Your task to perform on an android device: Open settings Image 0: 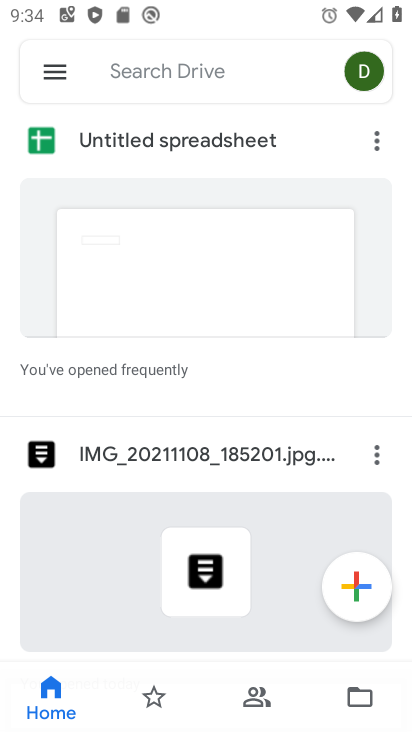
Step 0: press home button
Your task to perform on an android device: Open settings Image 1: 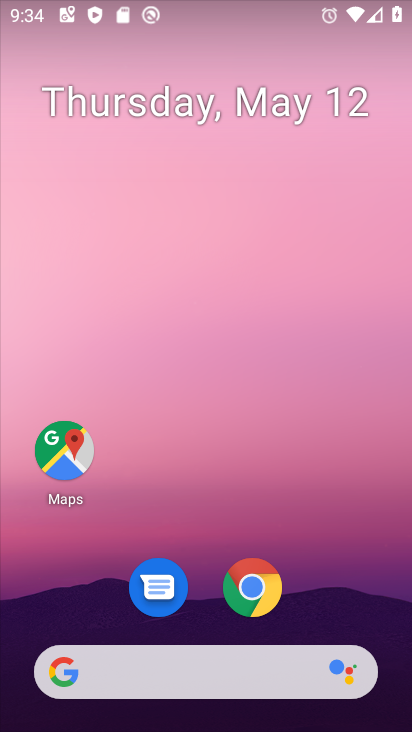
Step 1: drag from (327, 630) to (357, 287)
Your task to perform on an android device: Open settings Image 2: 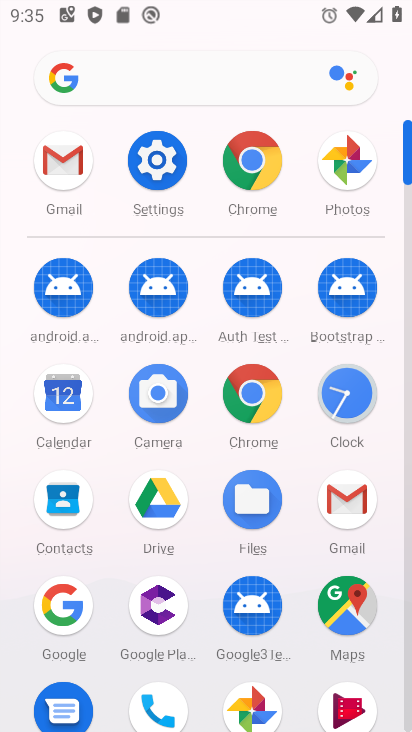
Step 2: click (163, 163)
Your task to perform on an android device: Open settings Image 3: 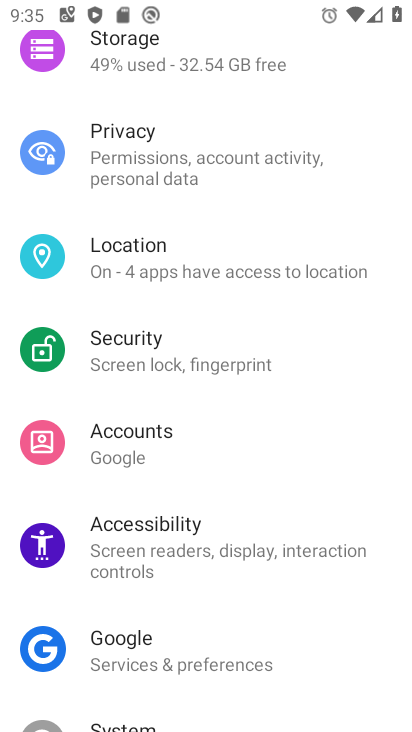
Step 3: task complete